Your task to perform on an android device: open app "Etsy: Buy & Sell Unique Items" (install if not already installed) and enter user name: "camp@inbox.com" and password: "unrelated" Image 0: 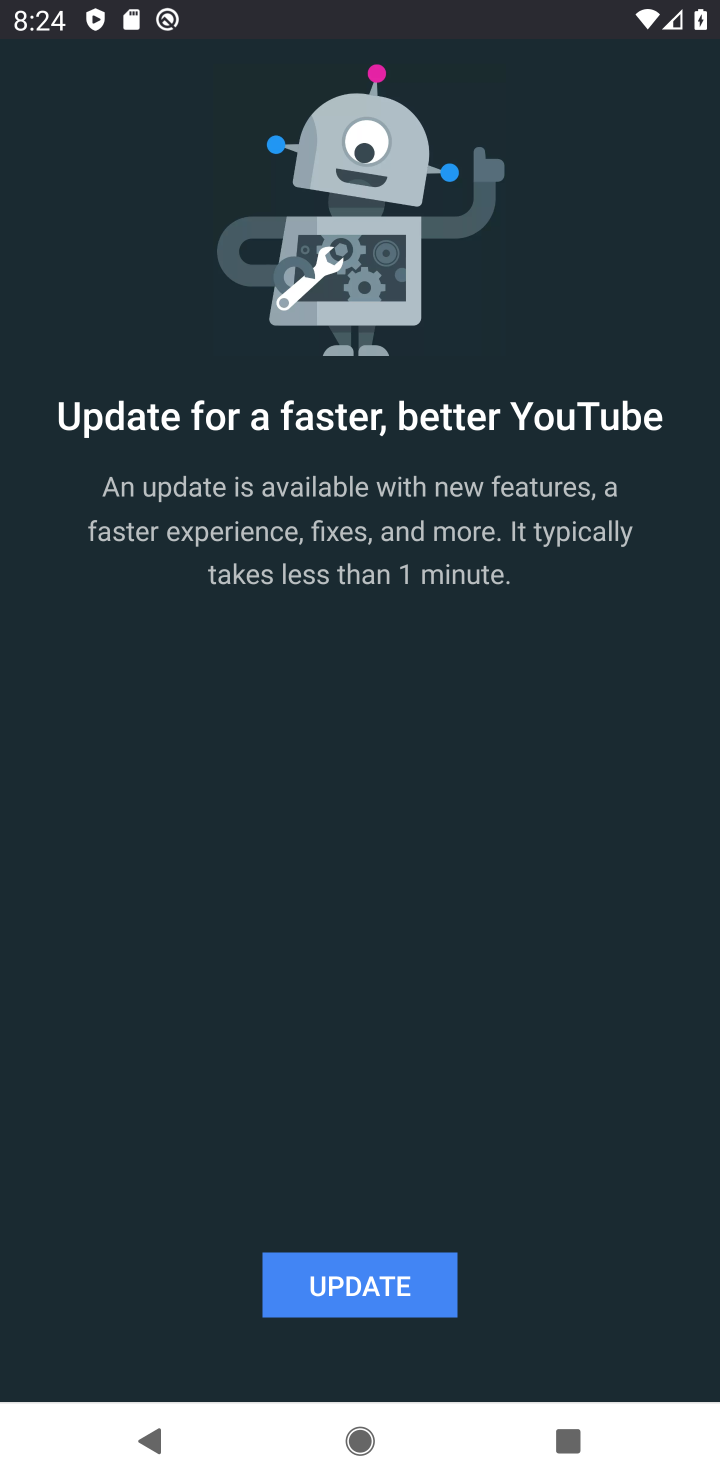
Step 0: press back button
Your task to perform on an android device: open app "Etsy: Buy & Sell Unique Items" (install if not already installed) and enter user name: "camp@inbox.com" and password: "unrelated" Image 1: 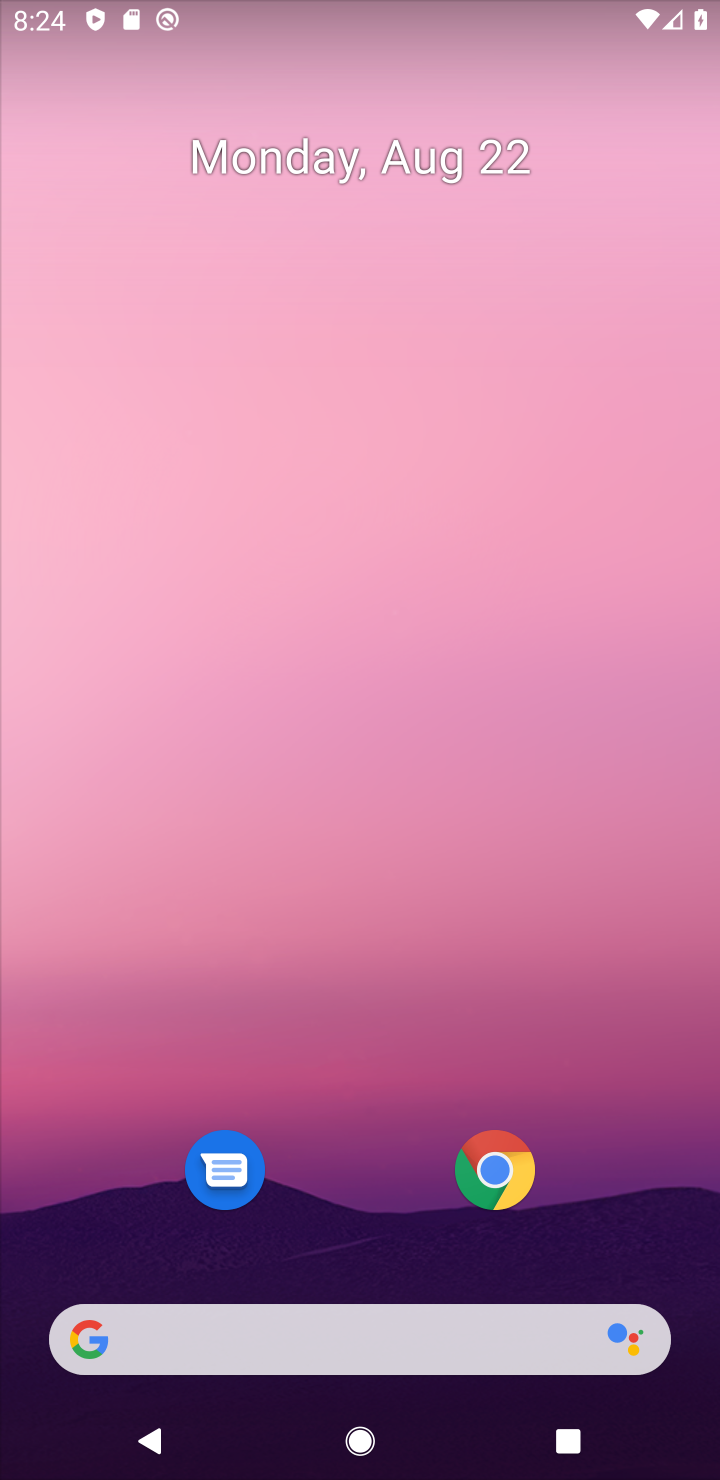
Step 1: drag from (347, 1125) to (453, 119)
Your task to perform on an android device: open app "Etsy: Buy & Sell Unique Items" (install if not already installed) and enter user name: "camp@inbox.com" and password: "unrelated" Image 2: 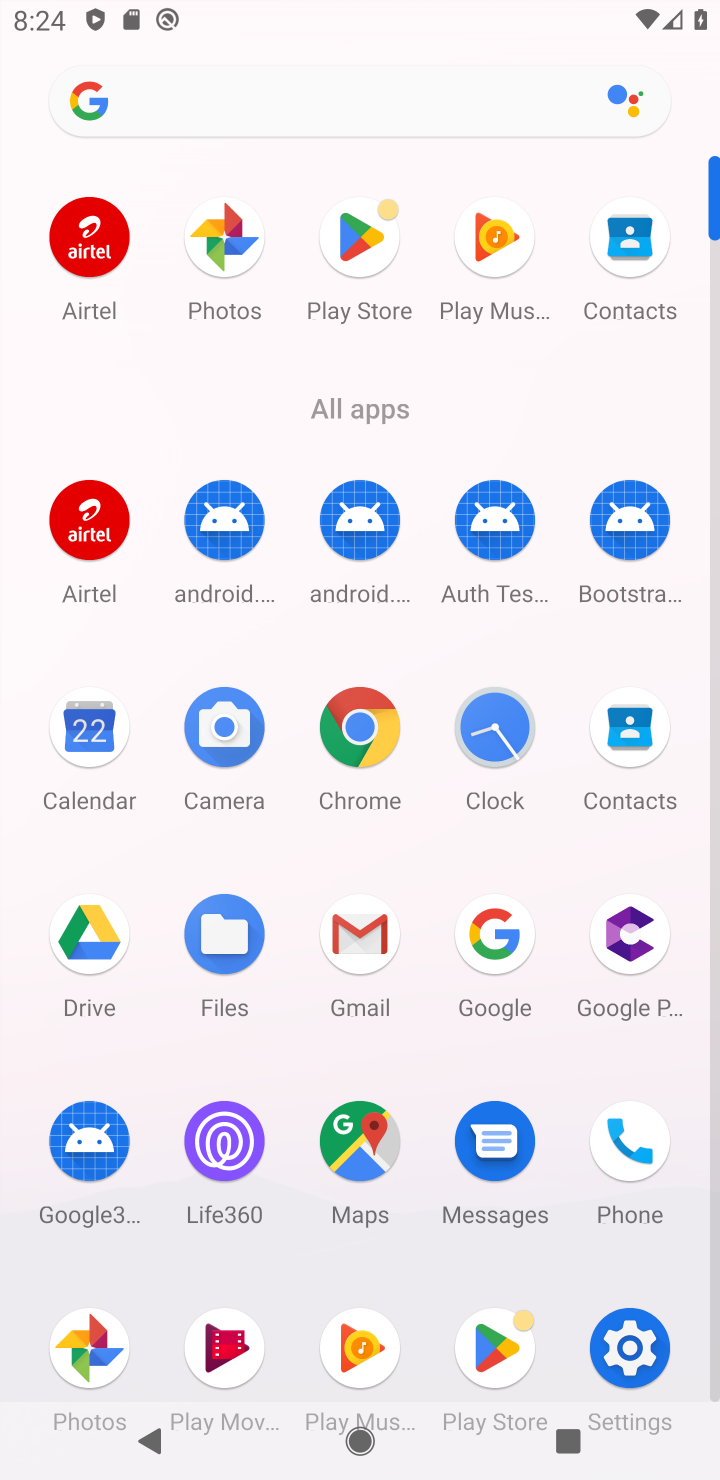
Step 2: click (341, 224)
Your task to perform on an android device: open app "Etsy: Buy & Sell Unique Items" (install if not already installed) and enter user name: "camp@inbox.com" and password: "unrelated" Image 3: 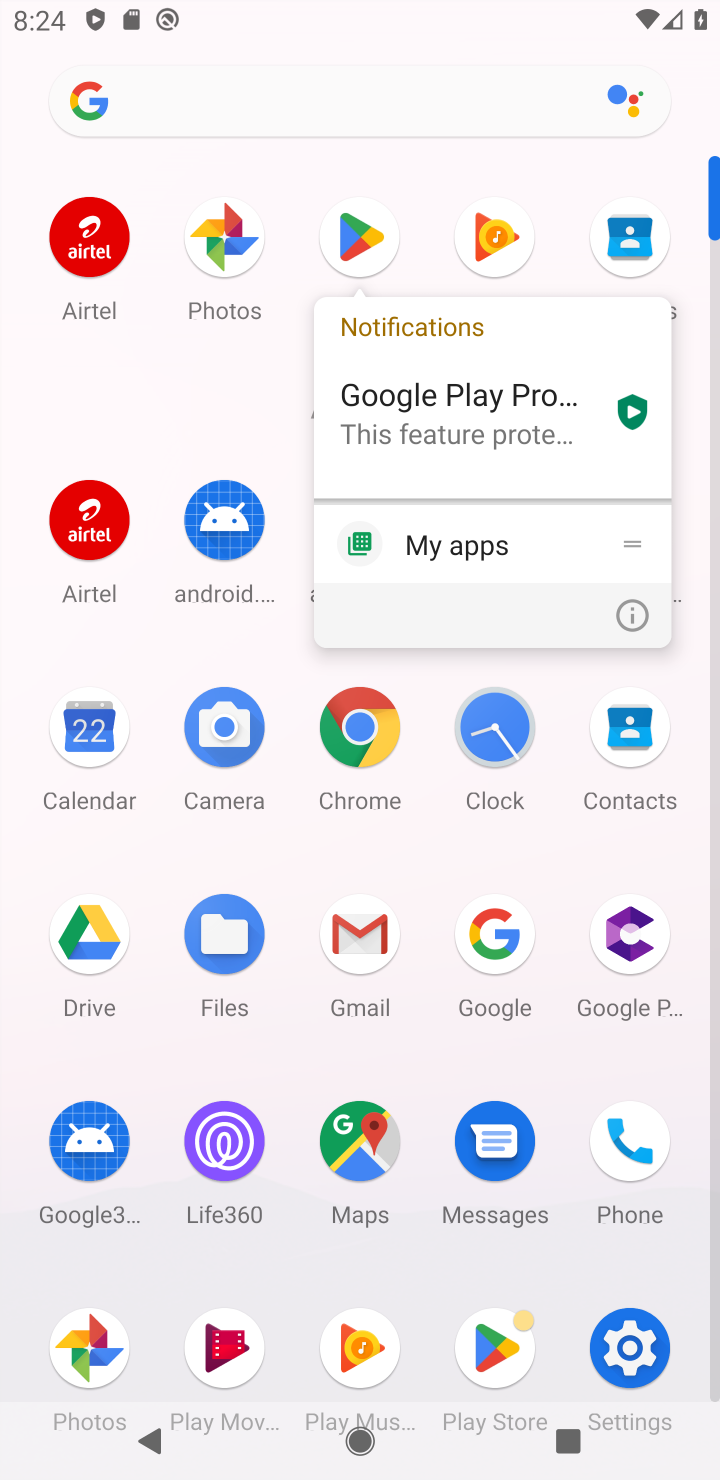
Step 3: click (350, 230)
Your task to perform on an android device: open app "Etsy: Buy & Sell Unique Items" (install if not already installed) and enter user name: "camp@inbox.com" and password: "unrelated" Image 4: 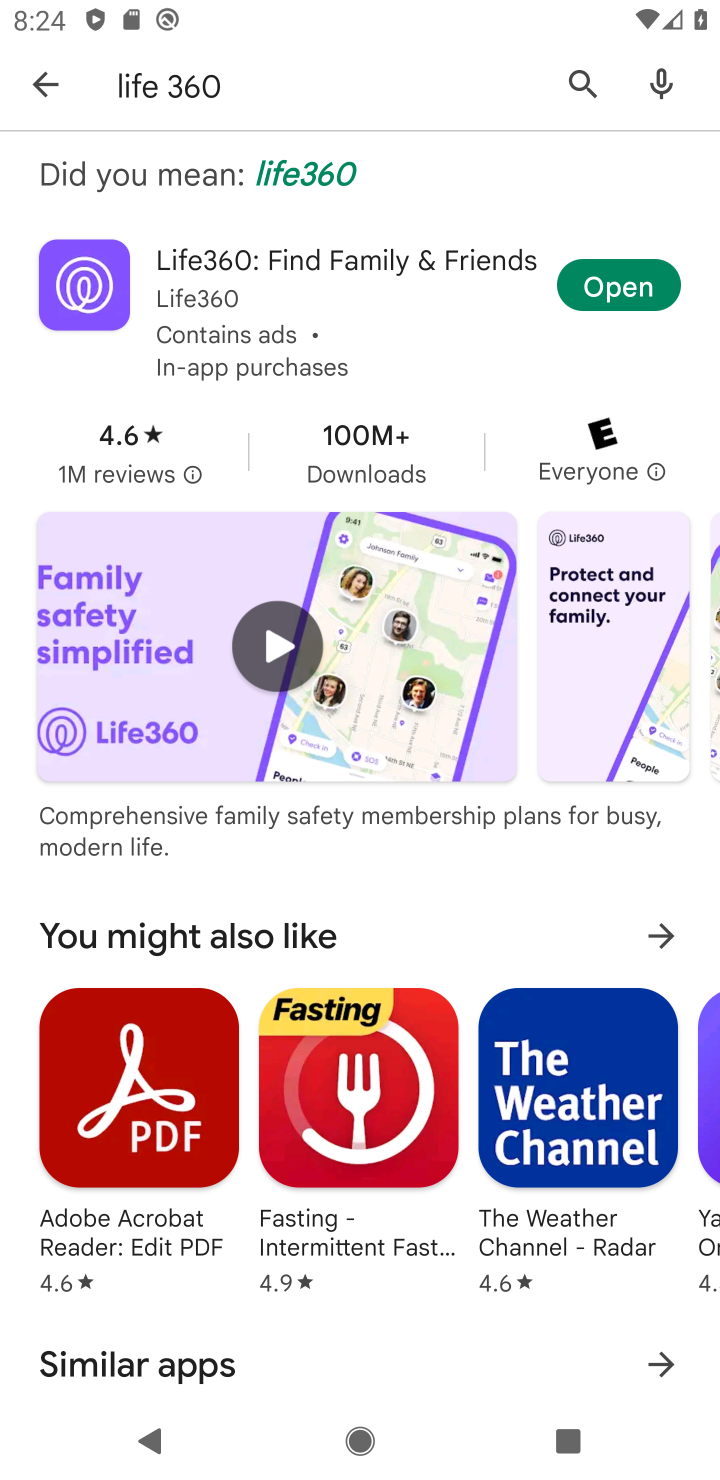
Step 4: click (565, 74)
Your task to perform on an android device: open app "Etsy: Buy & Sell Unique Items" (install if not already installed) and enter user name: "camp@inbox.com" and password: "unrelated" Image 5: 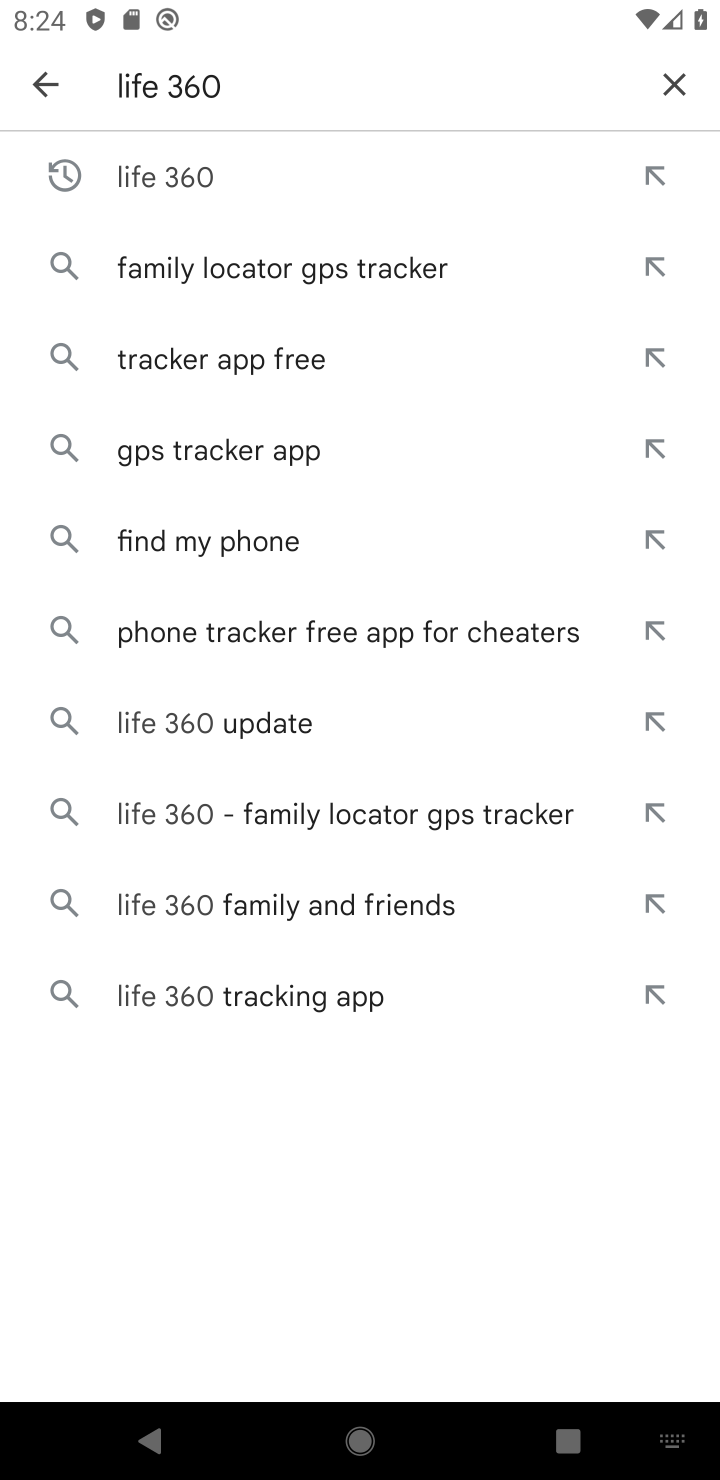
Step 5: click (688, 77)
Your task to perform on an android device: open app "Etsy: Buy & Sell Unique Items" (install if not already installed) and enter user name: "camp@inbox.com" and password: "unrelated" Image 6: 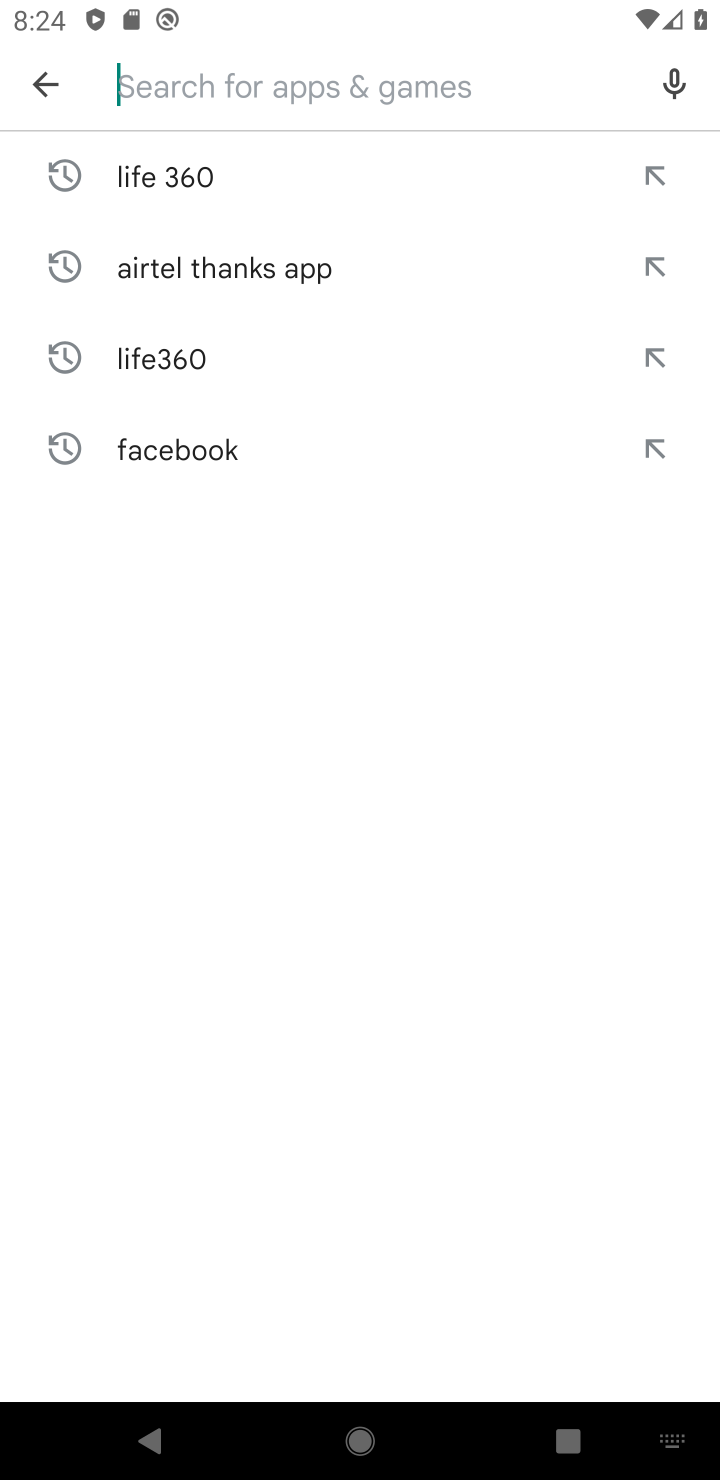
Step 6: click (279, 88)
Your task to perform on an android device: open app "Etsy: Buy & Sell Unique Items" (install if not already installed) and enter user name: "camp@inbox.com" and password: "unrelated" Image 7: 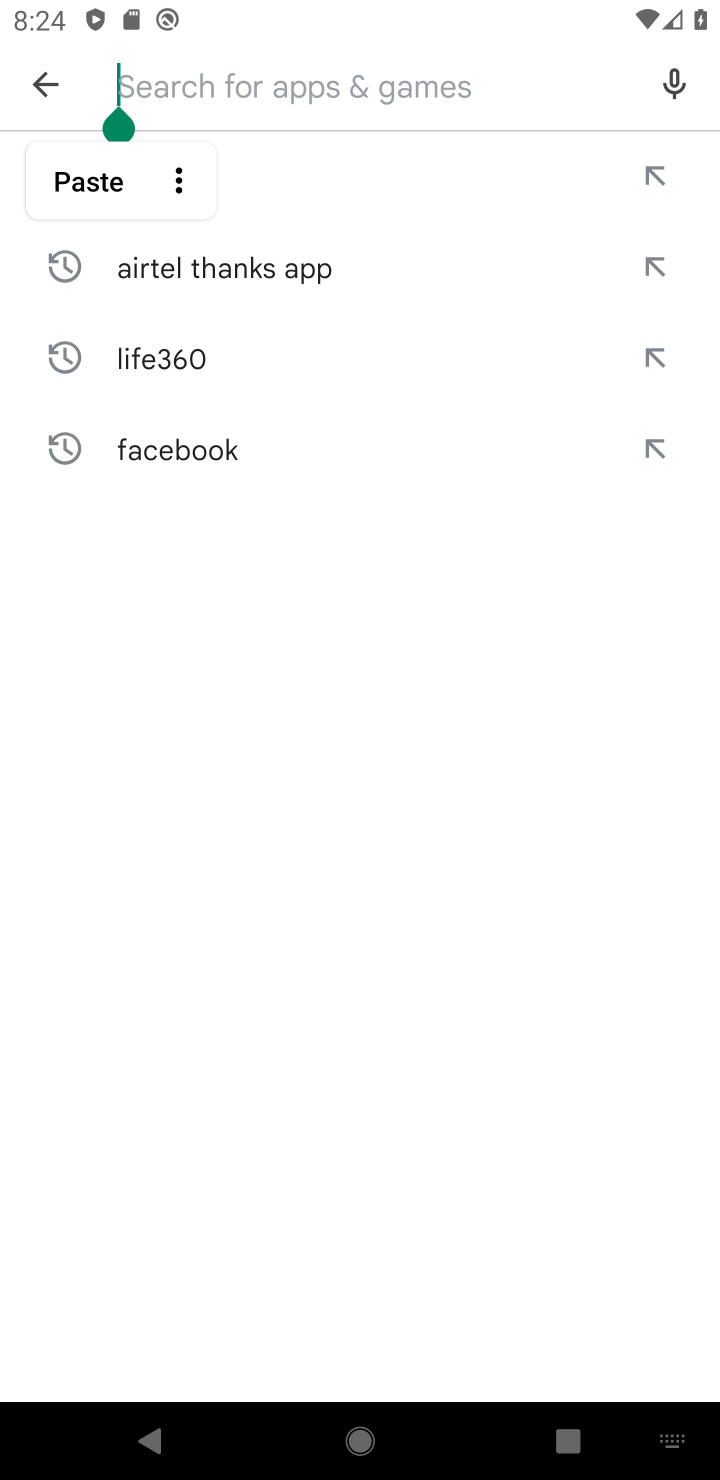
Step 7: type "etsy"
Your task to perform on an android device: open app "Etsy: Buy & Sell Unique Items" (install if not already installed) and enter user name: "camp@inbox.com" and password: "unrelated" Image 8: 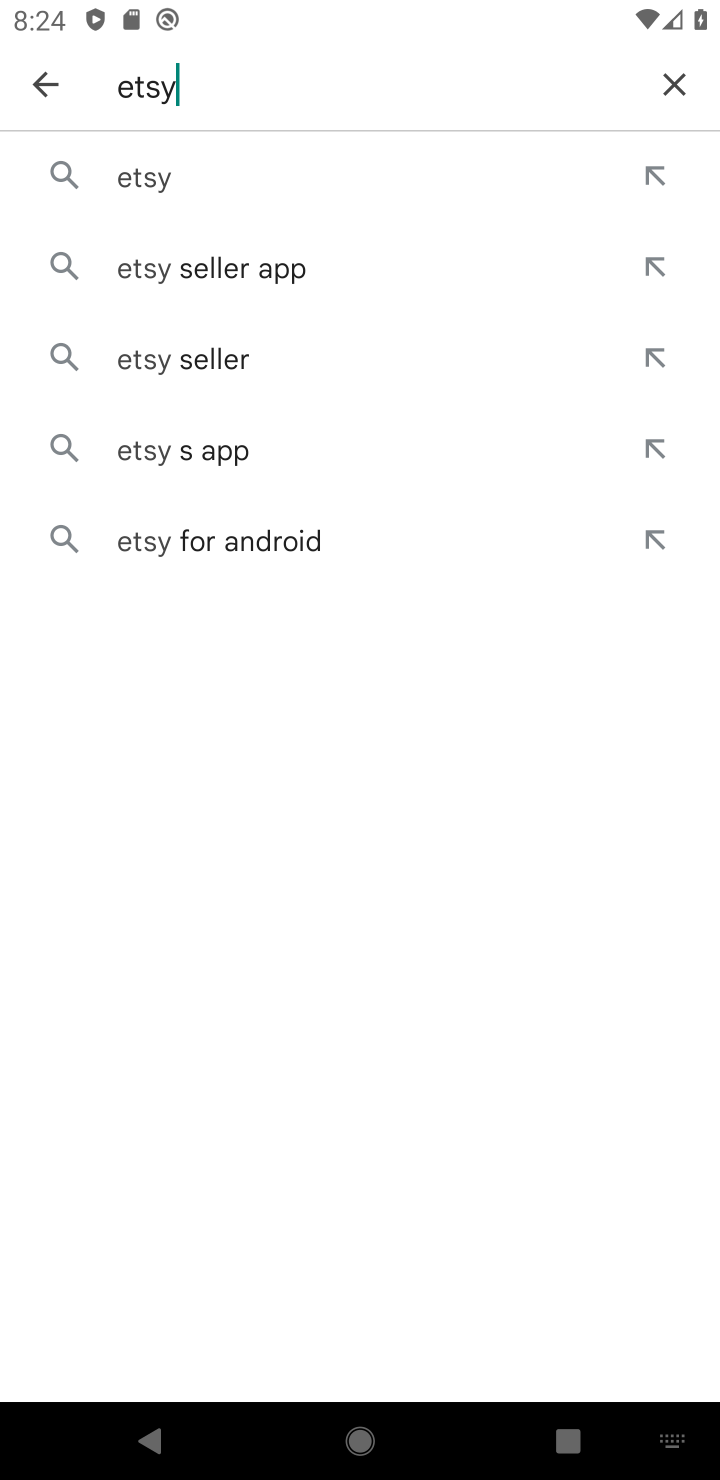
Step 8: click (168, 188)
Your task to perform on an android device: open app "Etsy: Buy & Sell Unique Items" (install if not already installed) and enter user name: "camp@inbox.com" and password: "unrelated" Image 9: 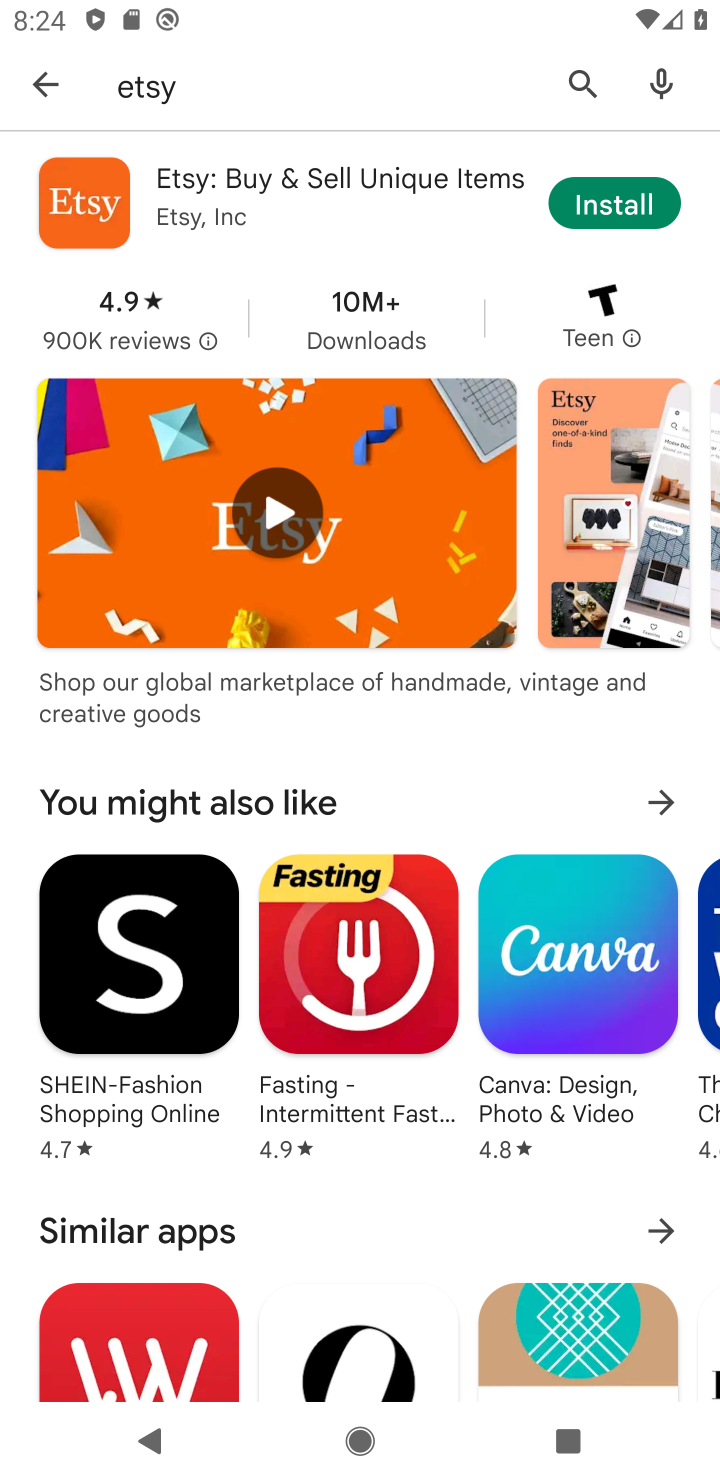
Step 9: click (615, 197)
Your task to perform on an android device: open app "Etsy: Buy & Sell Unique Items" (install if not already installed) and enter user name: "camp@inbox.com" and password: "unrelated" Image 10: 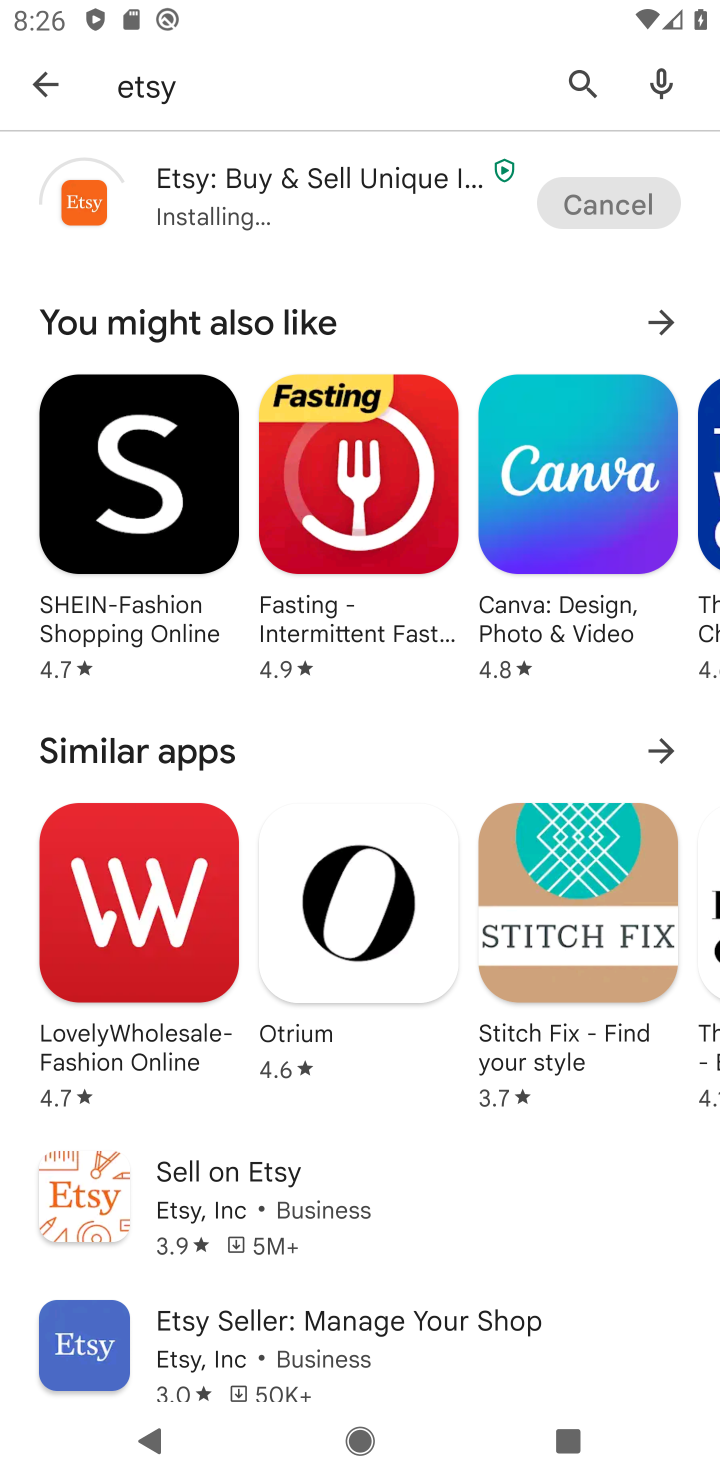
Step 10: press back button
Your task to perform on an android device: open app "Etsy: Buy & Sell Unique Items" (install if not already installed) and enter user name: "camp@inbox.com" and password: "unrelated" Image 11: 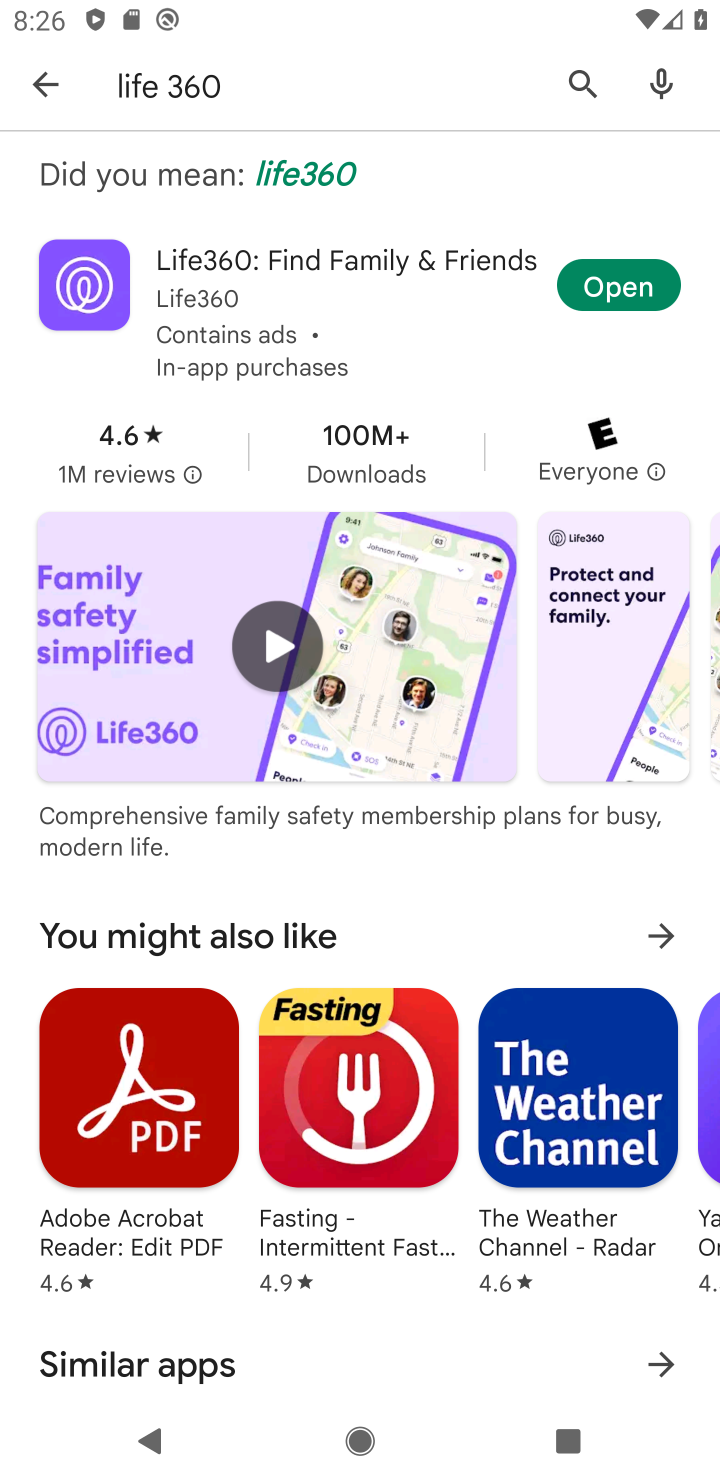
Step 11: click (581, 105)
Your task to perform on an android device: open app "Etsy: Buy & Sell Unique Items" (install if not already installed) and enter user name: "camp@inbox.com" and password: "unrelated" Image 12: 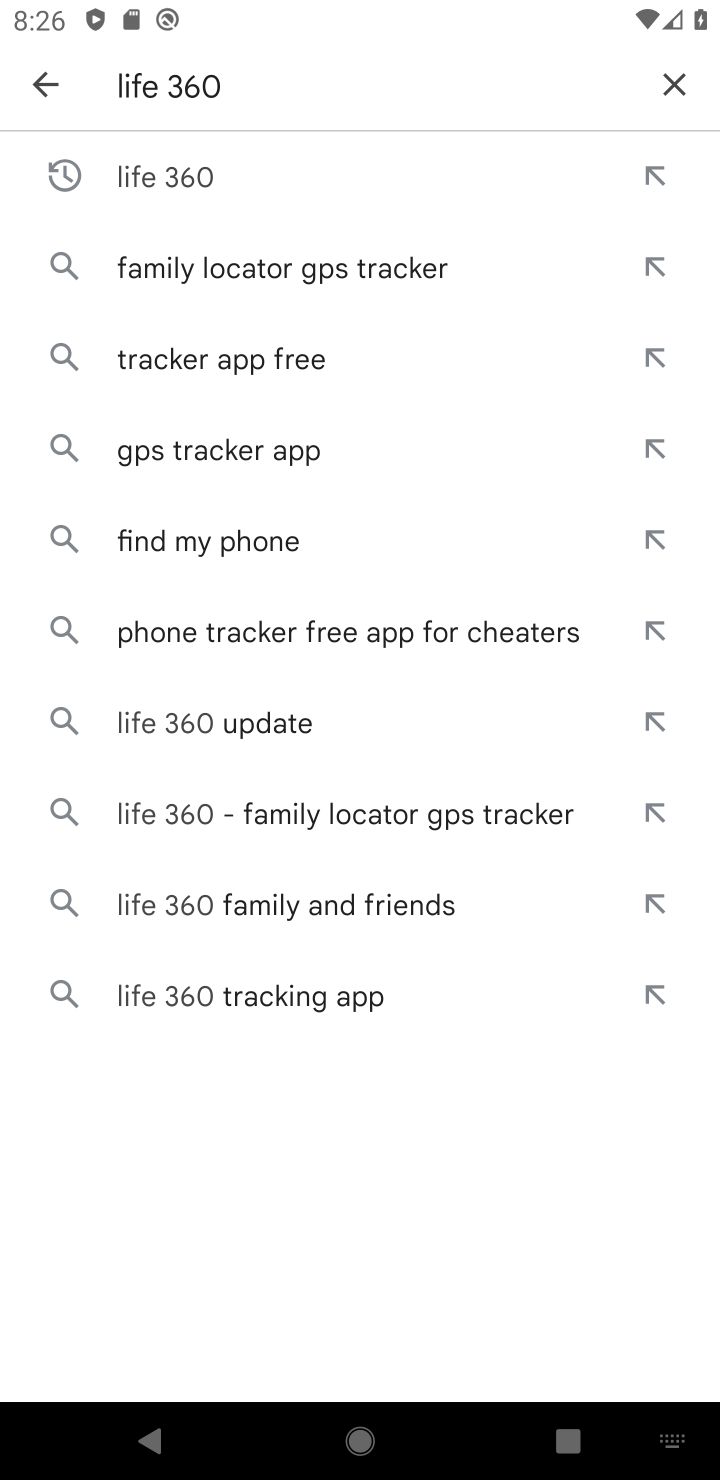
Step 12: click (678, 72)
Your task to perform on an android device: open app "Etsy: Buy & Sell Unique Items" (install if not already installed) and enter user name: "camp@inbox.com" and password: "unrelated" Image 13: 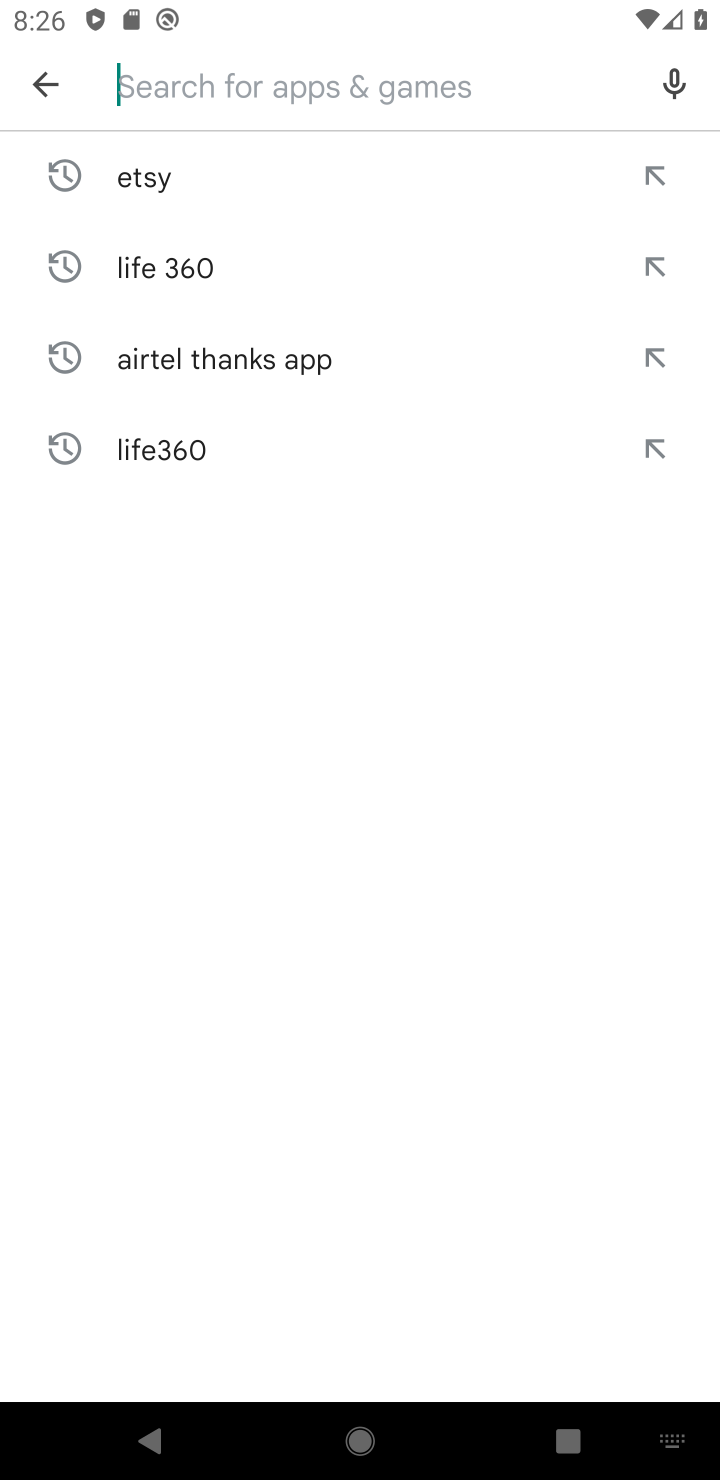
Step 13: click (163, 185)
Your task to perform on an android device: open app "Etsy: Buy & Sell Unique Items" (install if not already installed) and enter user name: "camp@inbox.com" and password: "unrelated" Image 14: 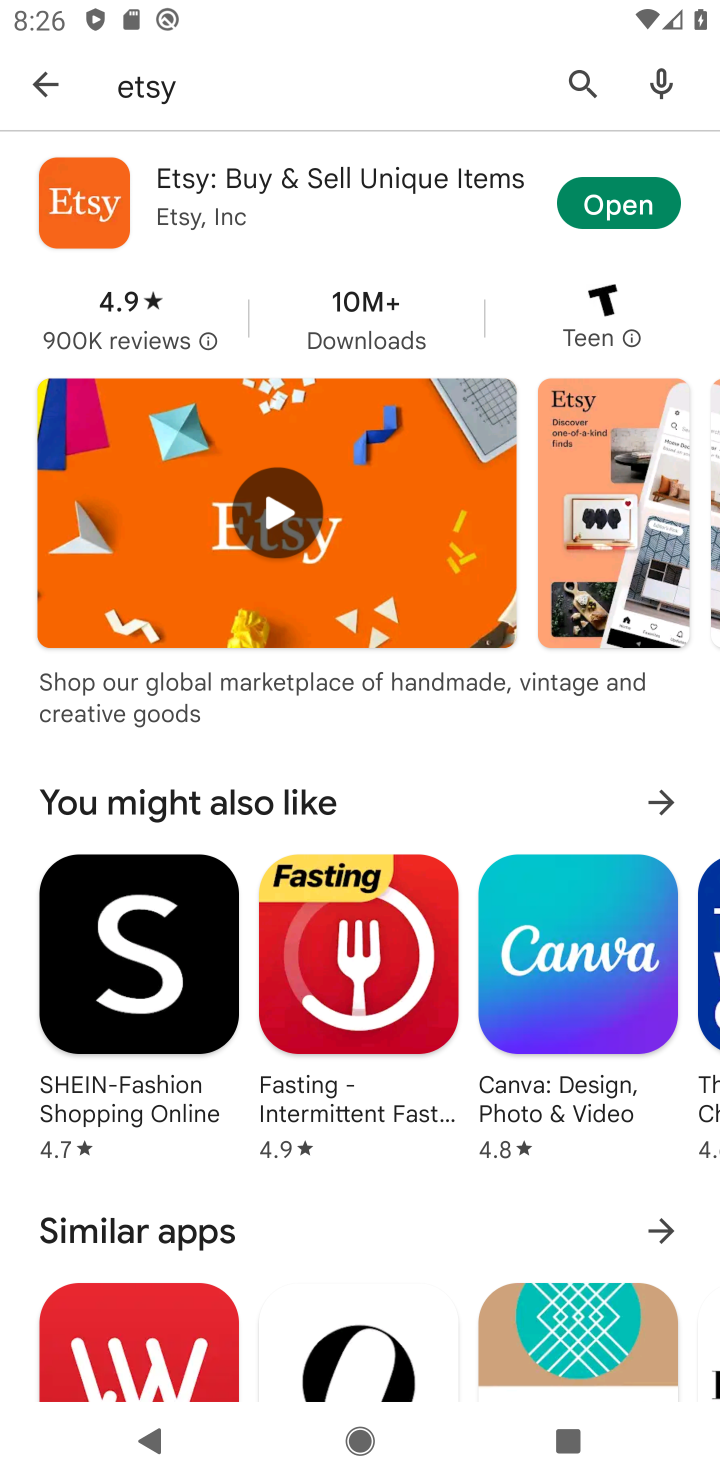
Step 14: click (608, 217)
Your task to perform on an android device: open app "Etsy: Buy & Sell Unique Items" (install if not already installed) and enter user name: "camp@inbox.com" and password: "unrelated" Image 15: 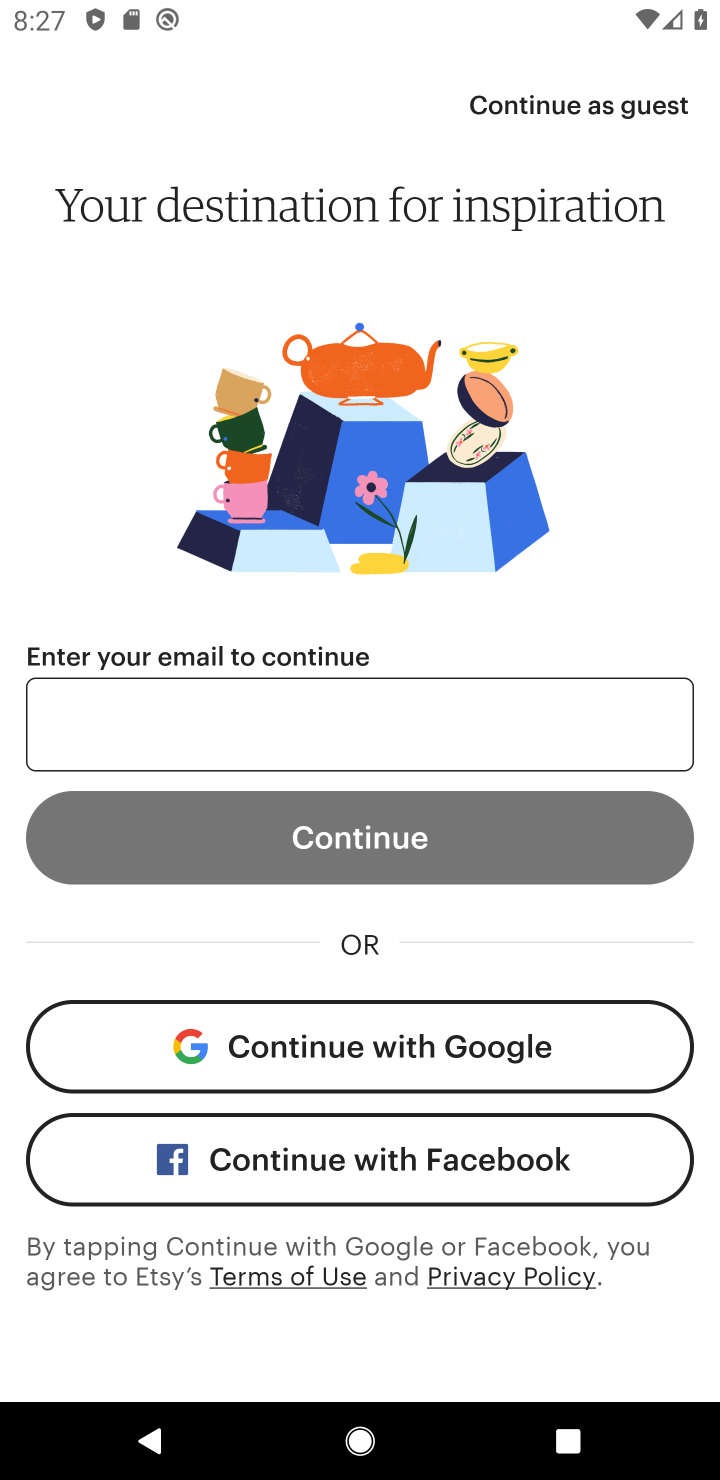
Step 15: click (235, 705)
Your task to perform on an android device: open app "Etsy: Buy & Sell Unique Items" (install if not already installed) and enter user name: "camp@inbox.com" and password: "unrelated" Image 16: 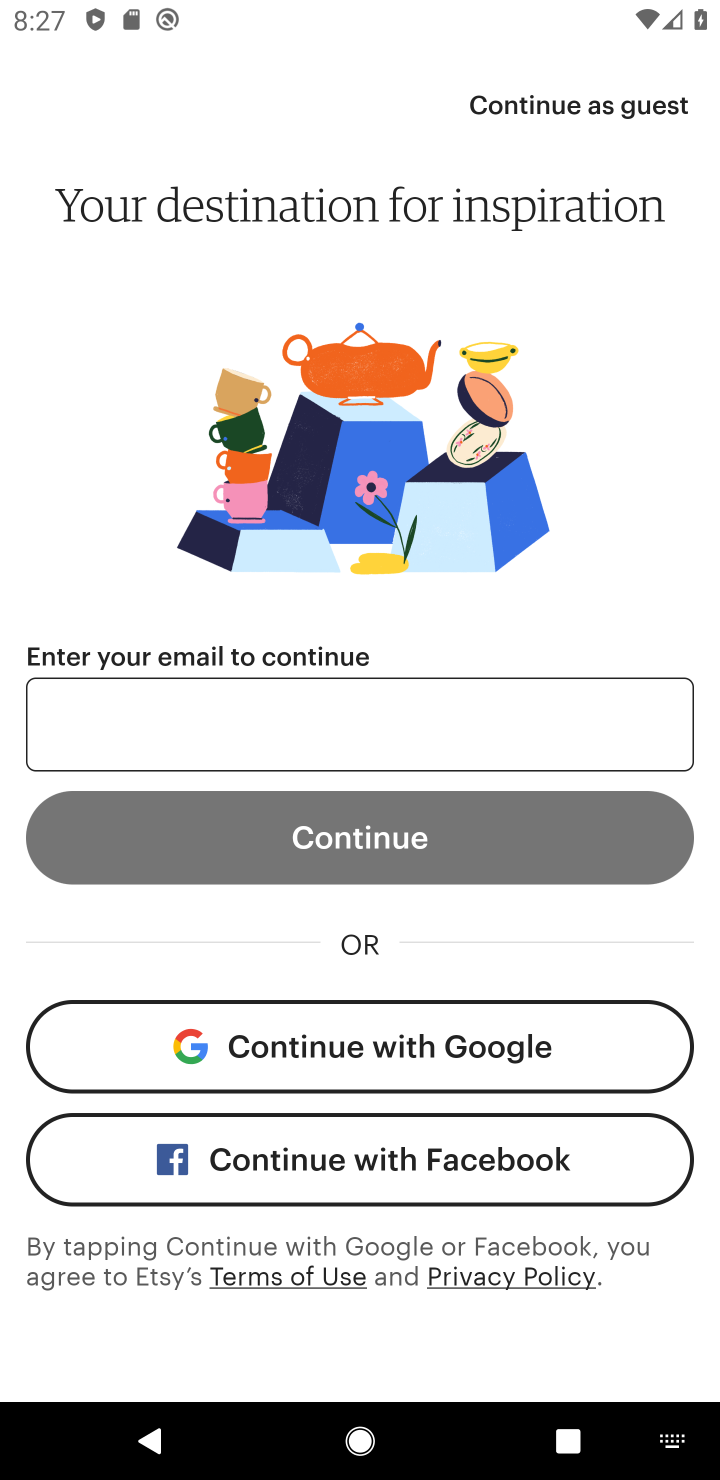
Step 16: type "camp@inbox.com"
Your task to perform on an android device: open app "Etsy: Buy & Sell Unique Items" (install if not already installed) and enter user name: "camp@inbox.com" and password: "unrelated" Image 17: 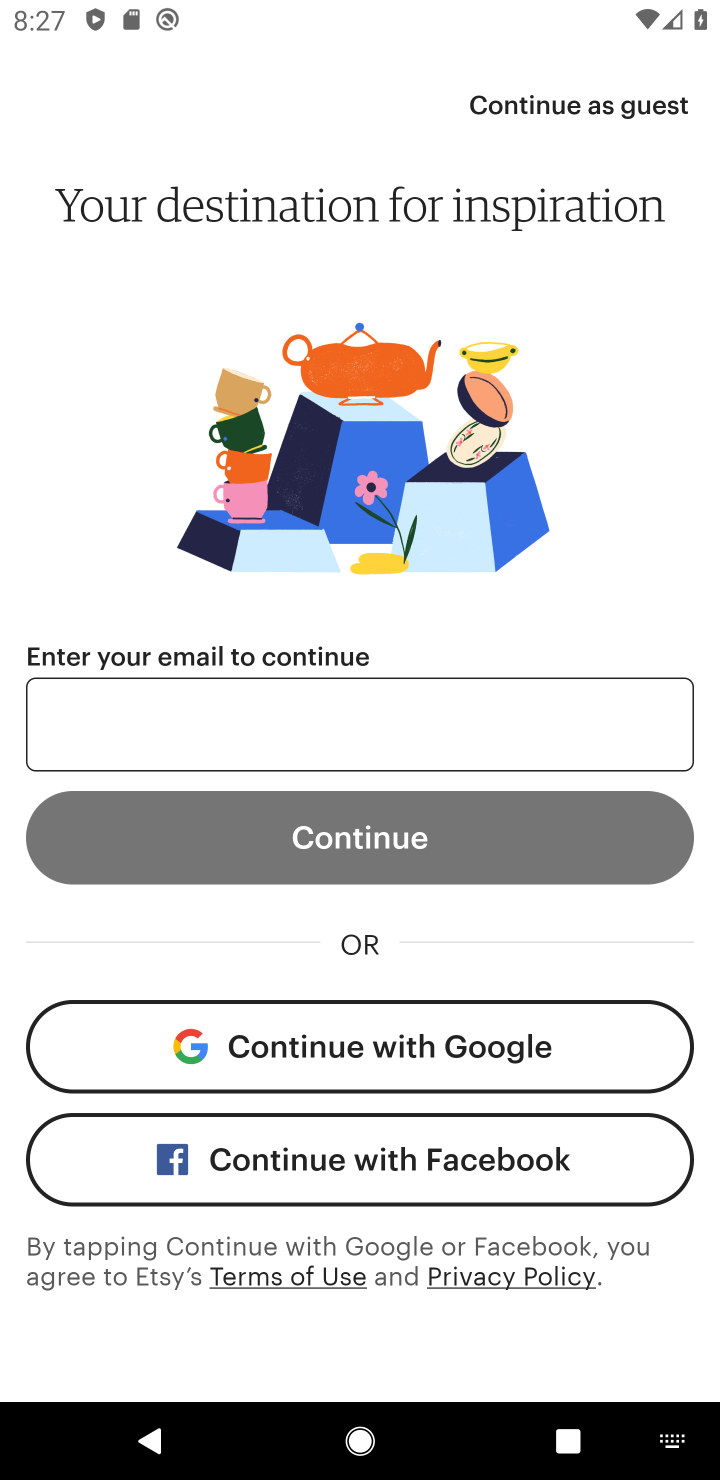
Step 17: click (58, 939)
Your task to perform on an android device: open app "Etsy: Buy & Sell Unique Items" (install if not already installed) and enter user name: "camp@inbox.com" and password: "unrelated" Image 18: 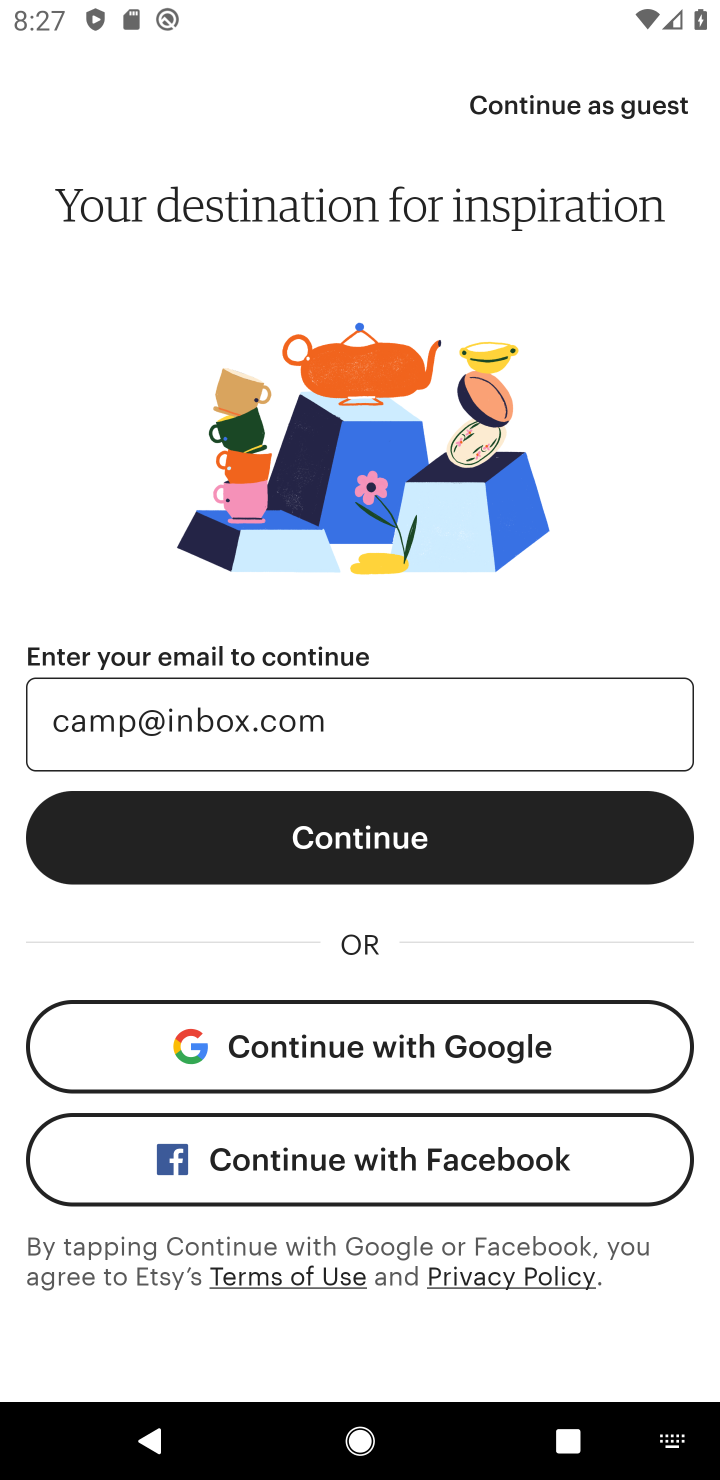
Step 18: click (317, 837)
Your task to perform on an android device: open app "Etsy: Buy & Sell Unique Items" (install if not already installed) and enter user name: "camp@inbox.com" and password: "unrelated" Image 19: 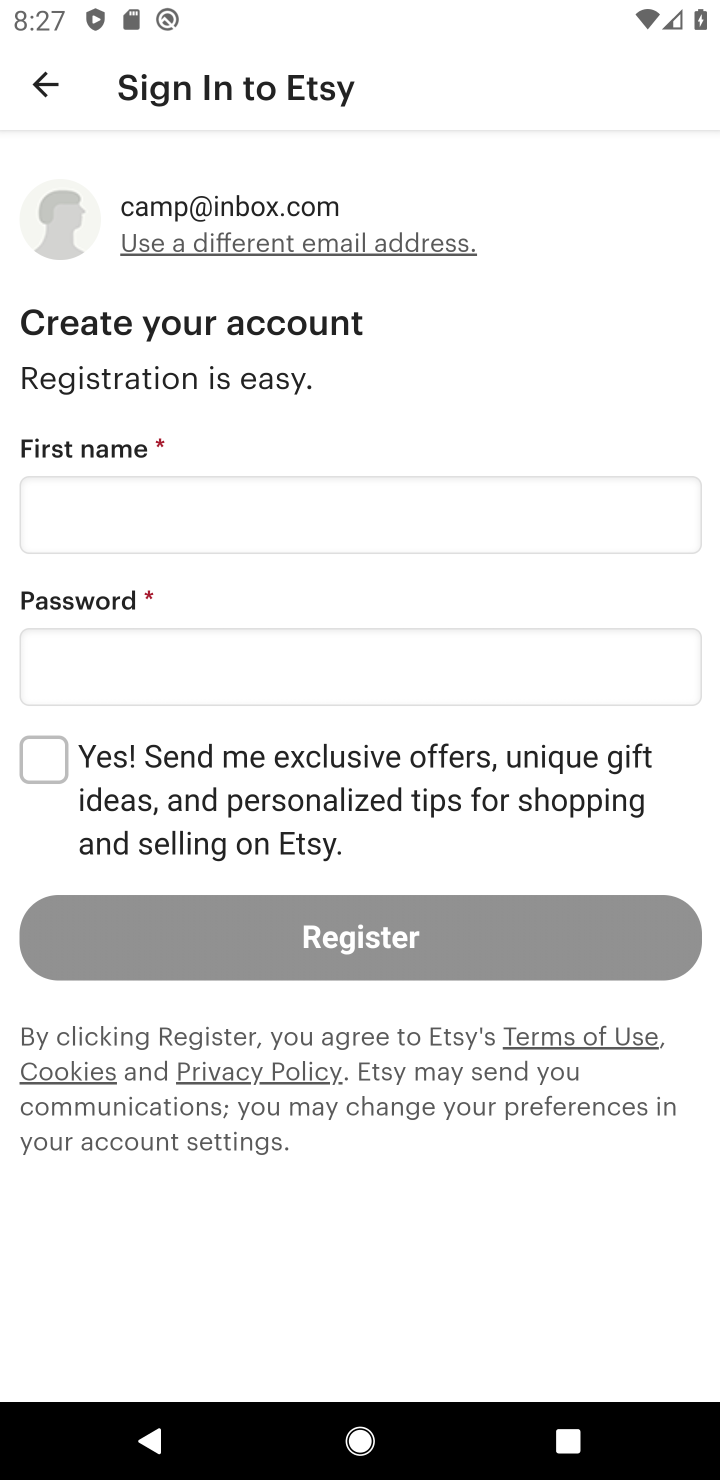
Step 19: click (105, 667)
Your task to perform on an android device: open app "Etsy: Buy & Sell Unique Items" (install if not already installed) and enter user name: "camp@inbox.com" and password: "unrelated" Image 20: 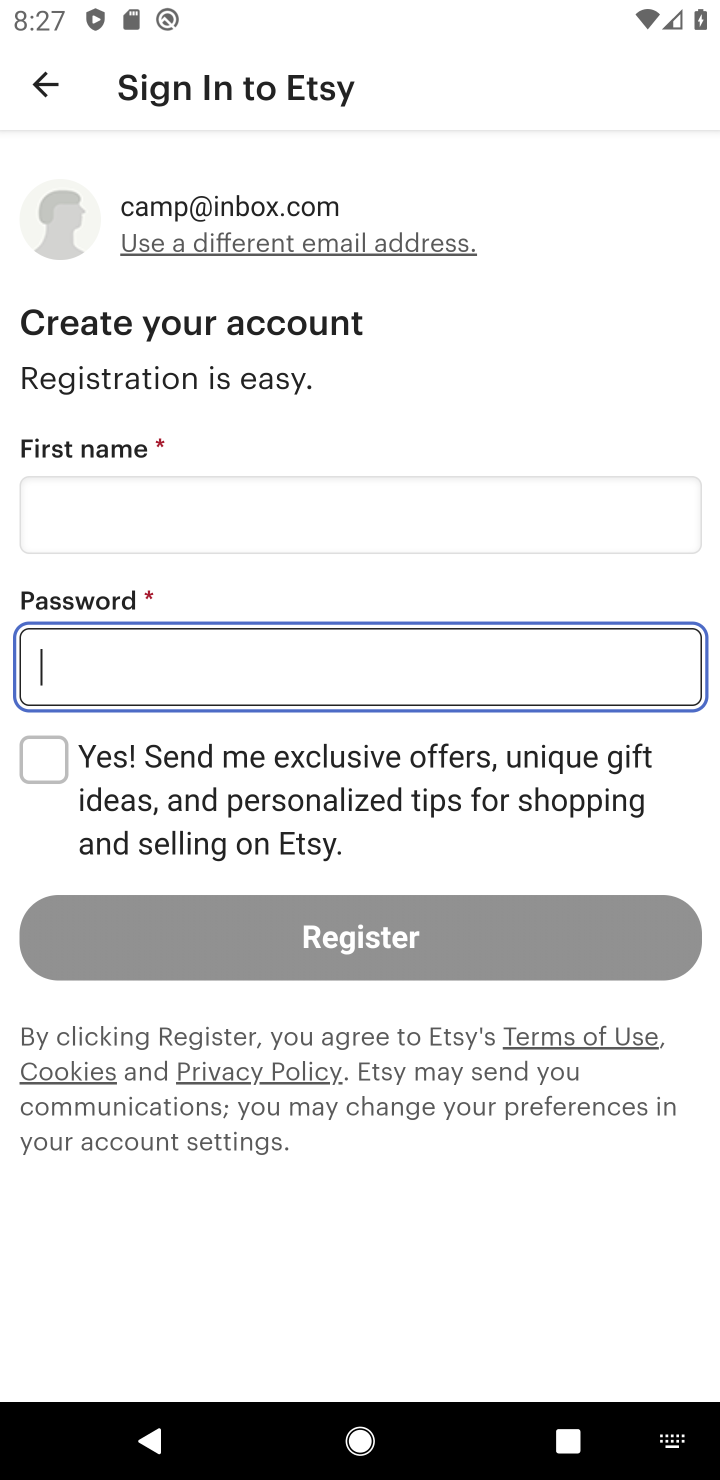
Step 20: click (75, 664)
Your task to perform on an android device: open app "Etsy: Buy & Sell Unique Items" (install if not already installed) and enter user name: "camp@inbox.com" and password: "unrelated" Image 21: 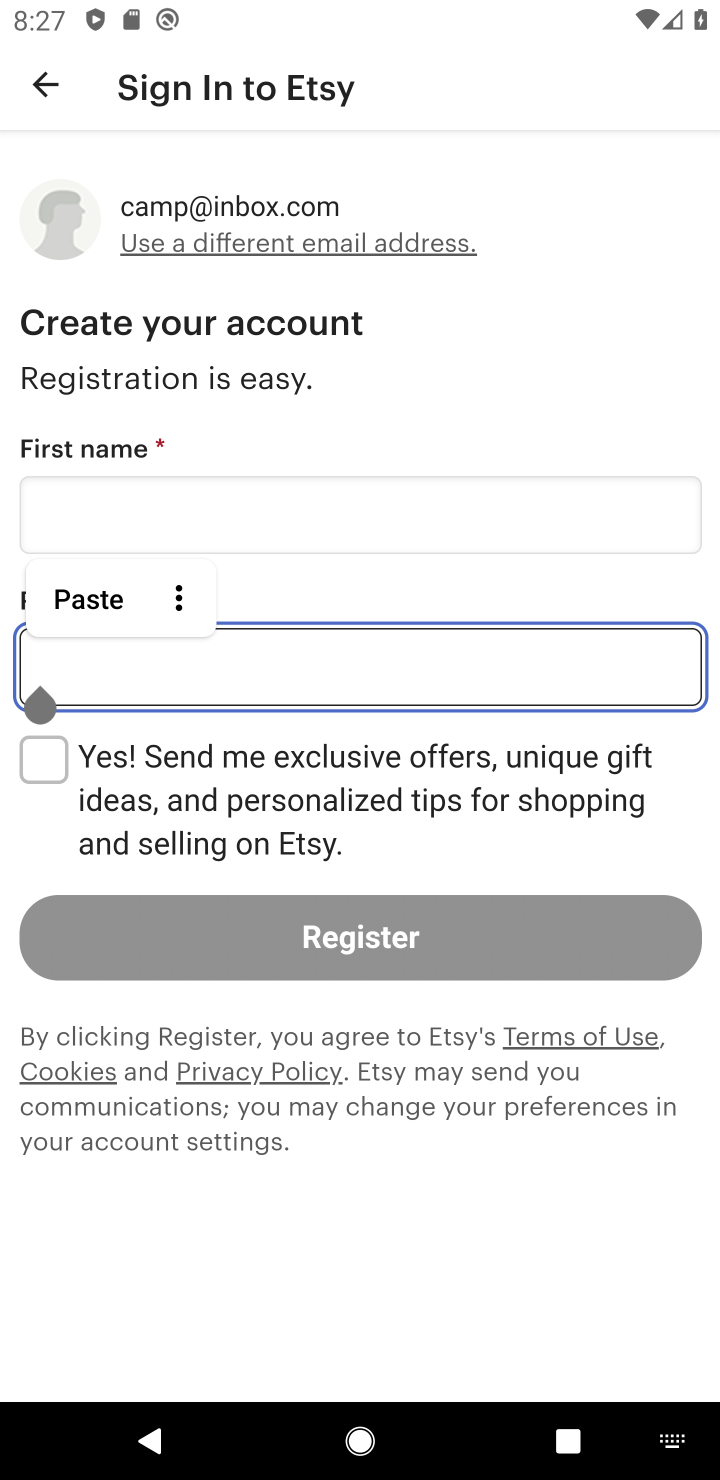
Step 21: type "unrelated"
Your task to perform on an android device: open app "Etsy: Buy & Sell Unique Items" (install if not already installed) and enter user name: "camp@inbox.com" and password: "unrelated" Image 22: 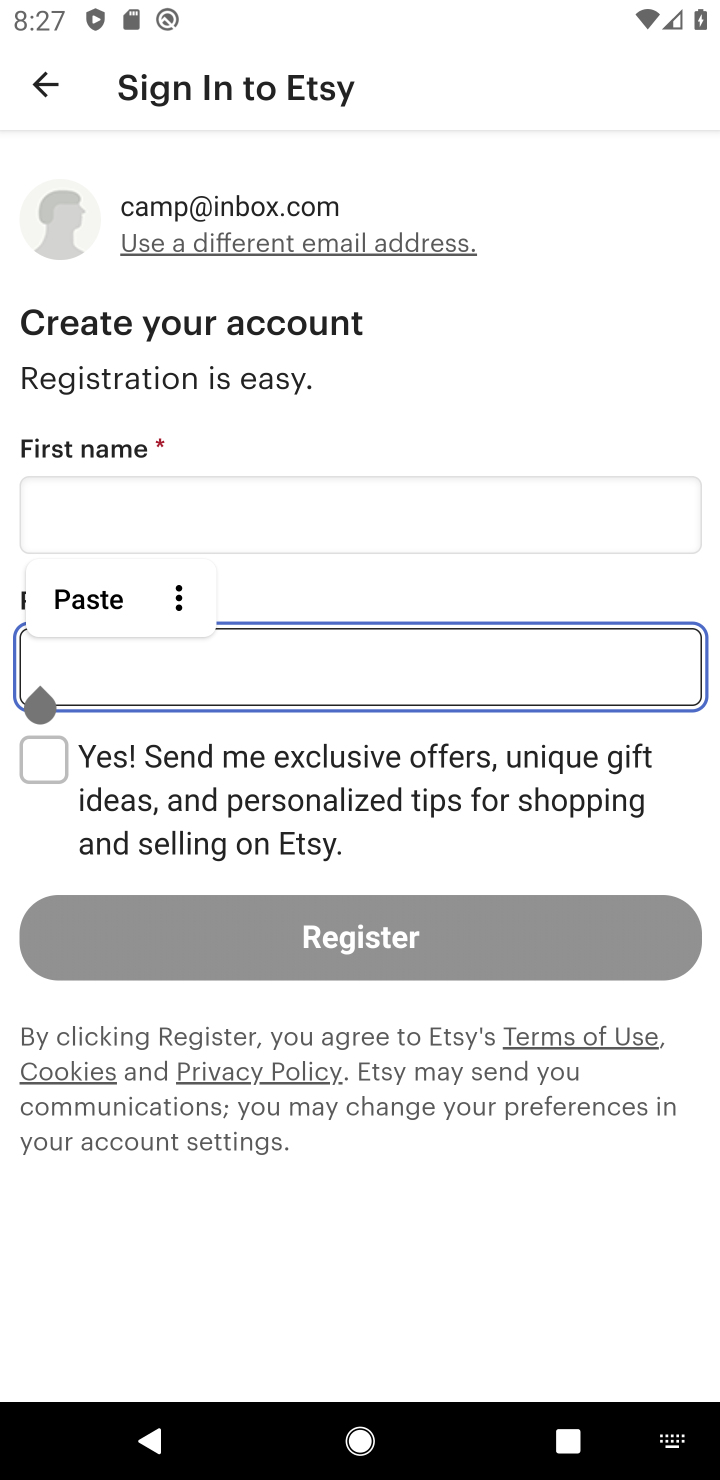
Step 22: click (220, 1264)
Your task to perform on an android device: open app "Etsy: Buy & Sell Unique Items" (install if not already installed) and enter user name: "camp@inbox.com" and password: "unrelated" Image 23: 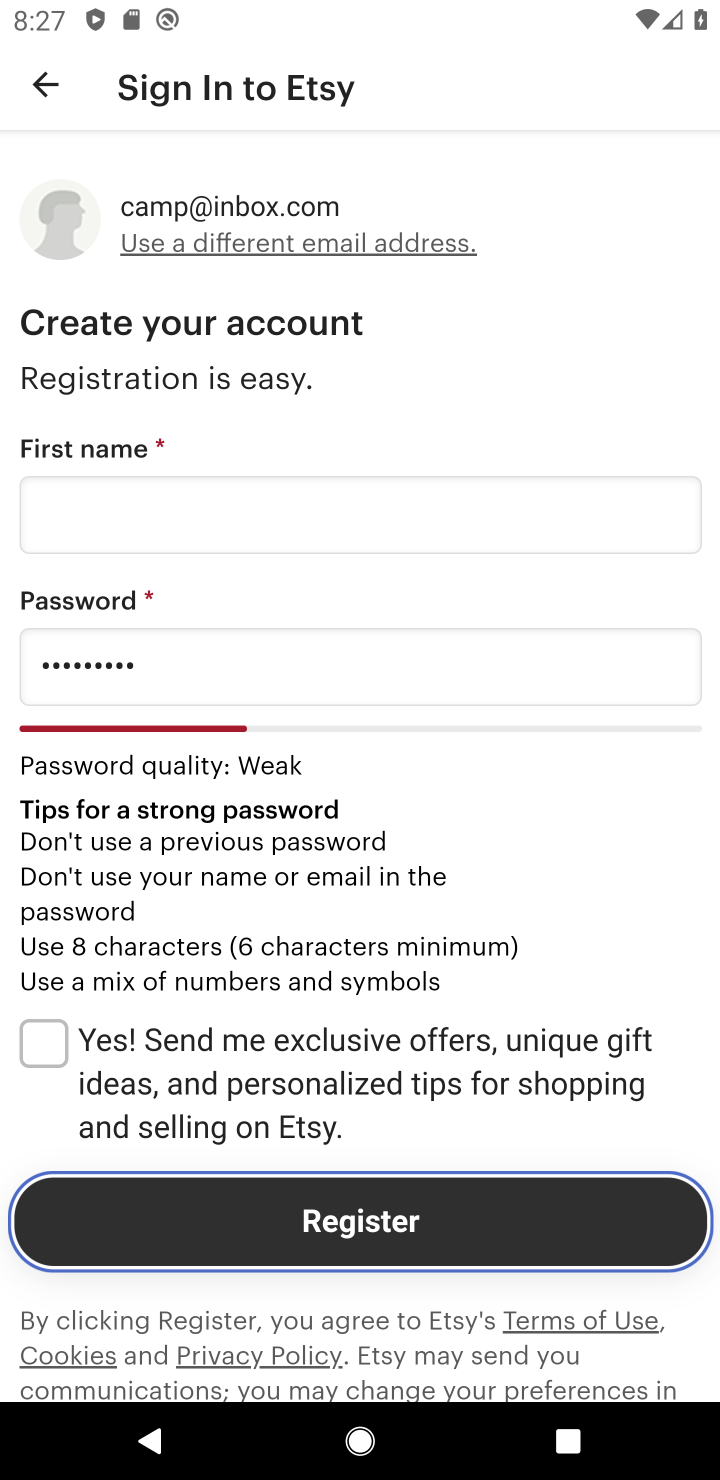
Step 23: task complete